Your task to perform on an android device: Clear the shopping cart on amazon. Search for logitech g pro on amazon, select the first entry, and add it to the cart. Image 0: 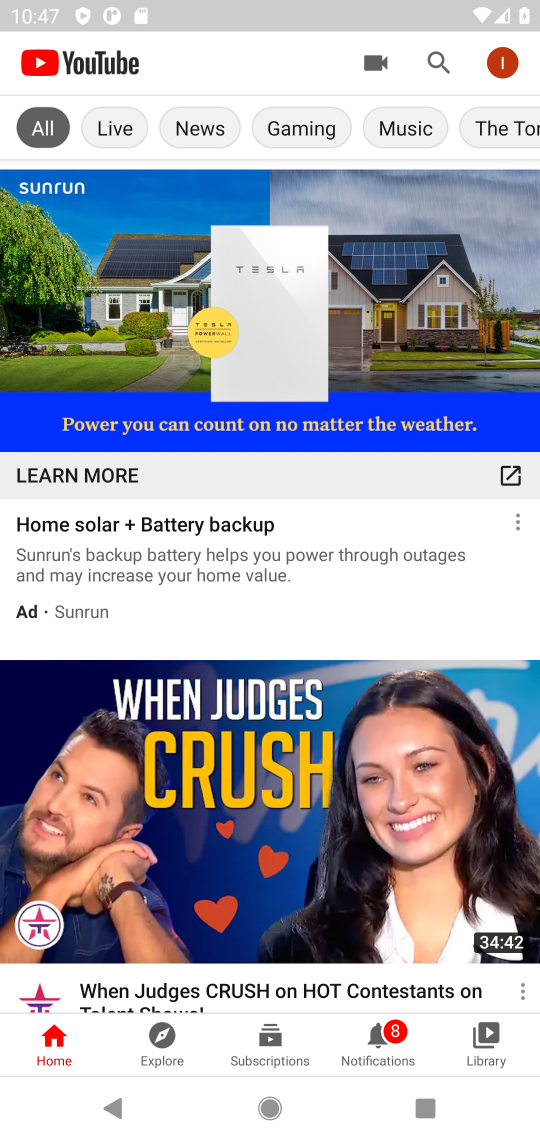
Step 0: press home button
Your task to perform on an android device: Clear the shopping cart on amazon. Search for logitech g pro on amazon, select the first entry, and add it to the cart. Image 1: 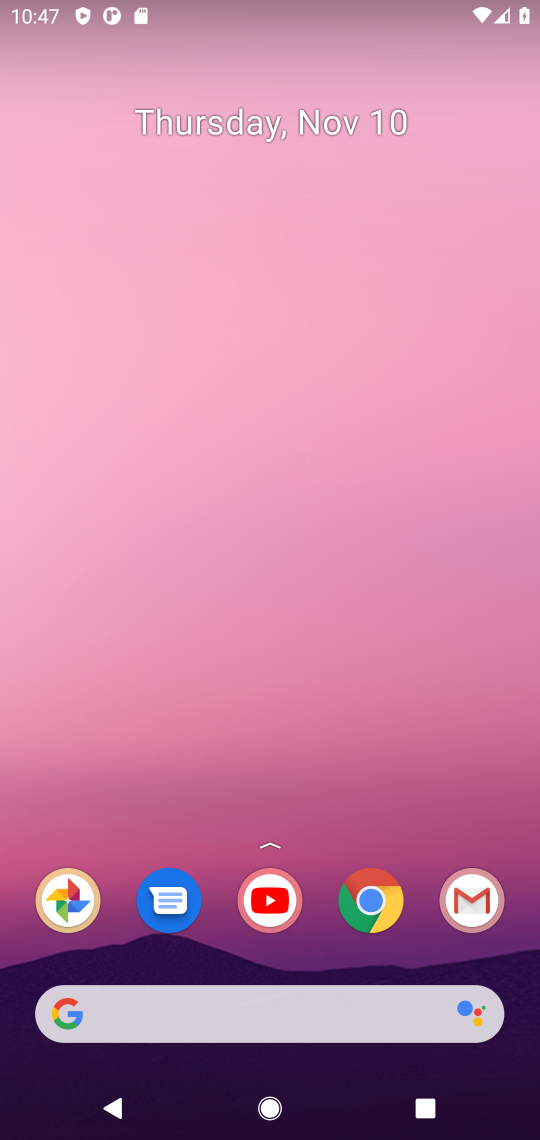
Step 1: click (366, 902)
Your task to perform on an android device: Clear the shopping cart on amazon. Search for logitech g pro on amazon, select the first entry, and add it to the cart. Image 2: 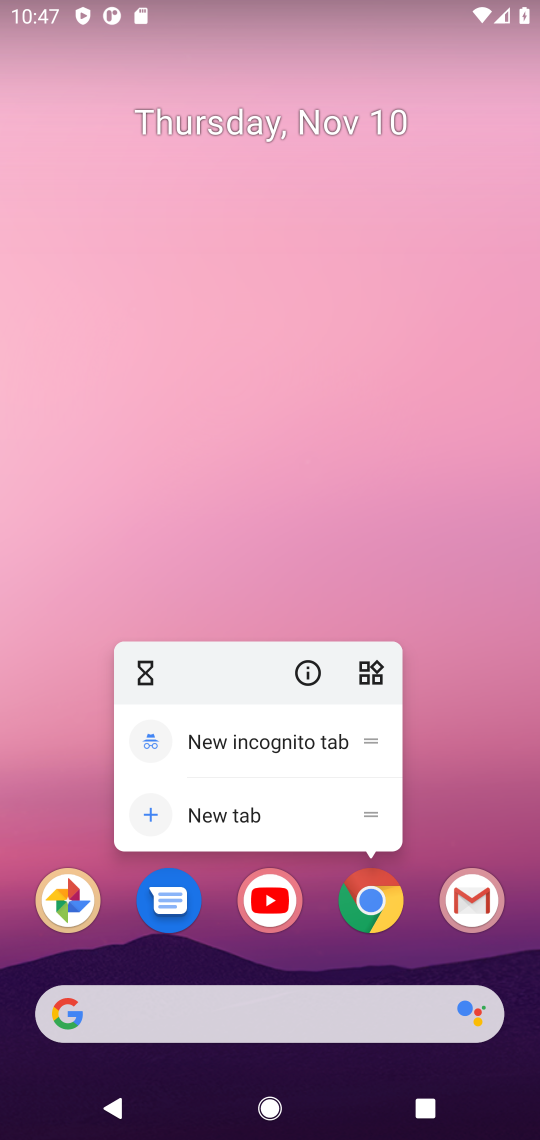
Step 2: click (372, 903)
Your task to perform on an android device: Clear the shopping cart on amazon. Search for logitech g pro on amazon, select the first entry, and add it to the cart. Image 3: 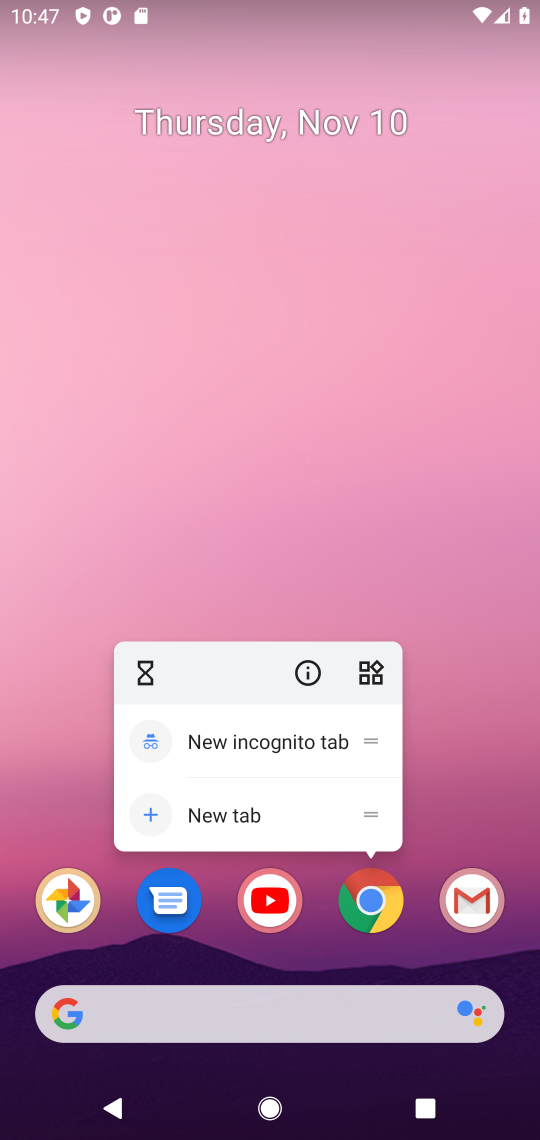
Step 3: click (372, 905)
Your task to perform on an android device: Clear the shopping cart on amazon. Search for logitech g pro on amazon, select the first entry, and add it to the cart. Image 4: 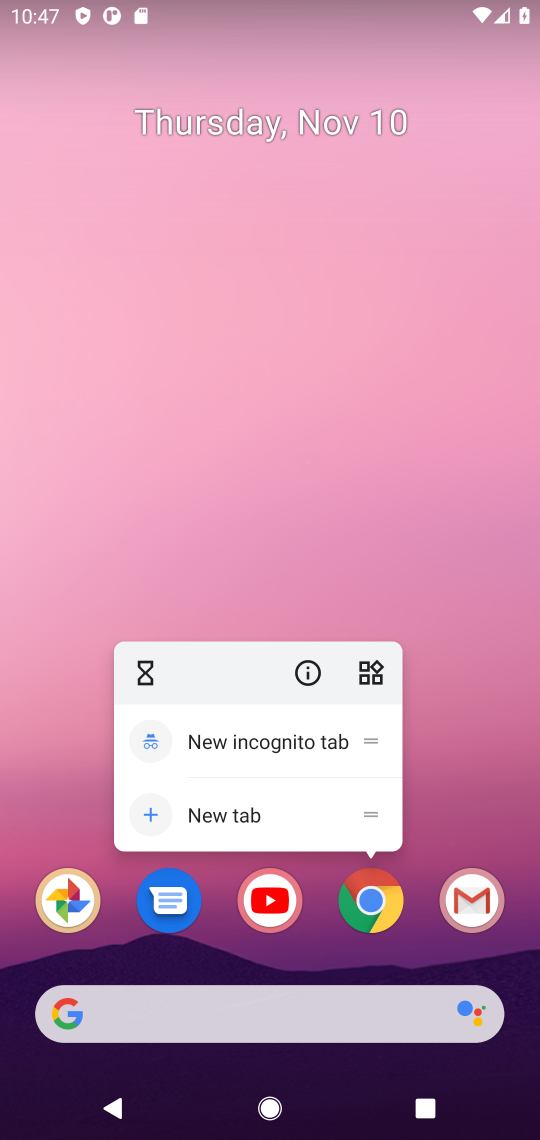
Step 4: click (372, 905)
Your task to perform on an android device: Clear the shopping cart on amazon. Search for logitech g pro on amazon, select the first entry, and add it to the cart. Image 5: 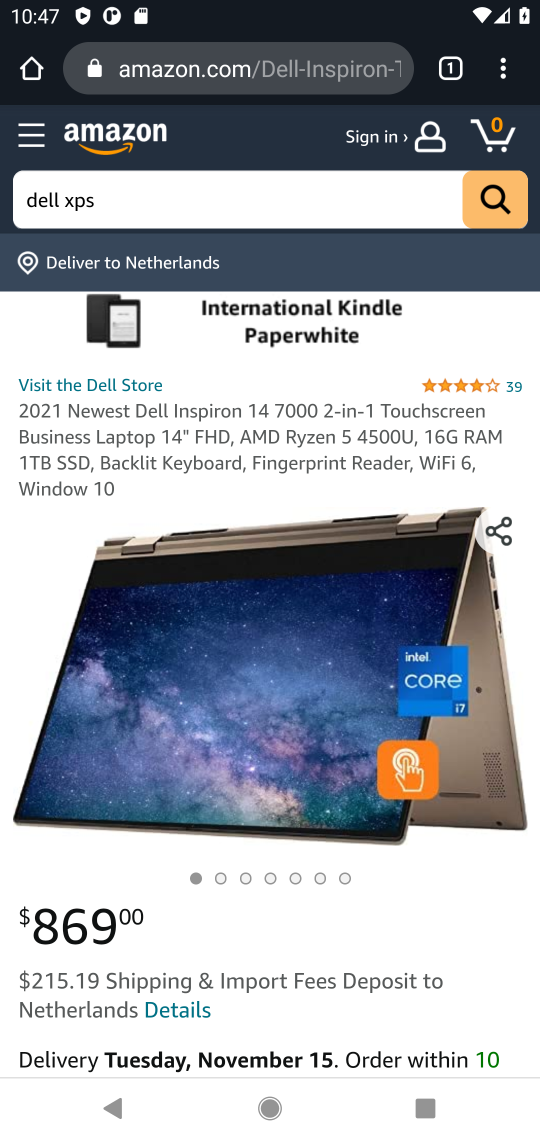
Step 5: click (290, 203)
Your task to perform on an android device: Clear the shopping cart on amazon. Search for logitech g pro on amazon, select the first entry, and add it to the cart. Image 6: 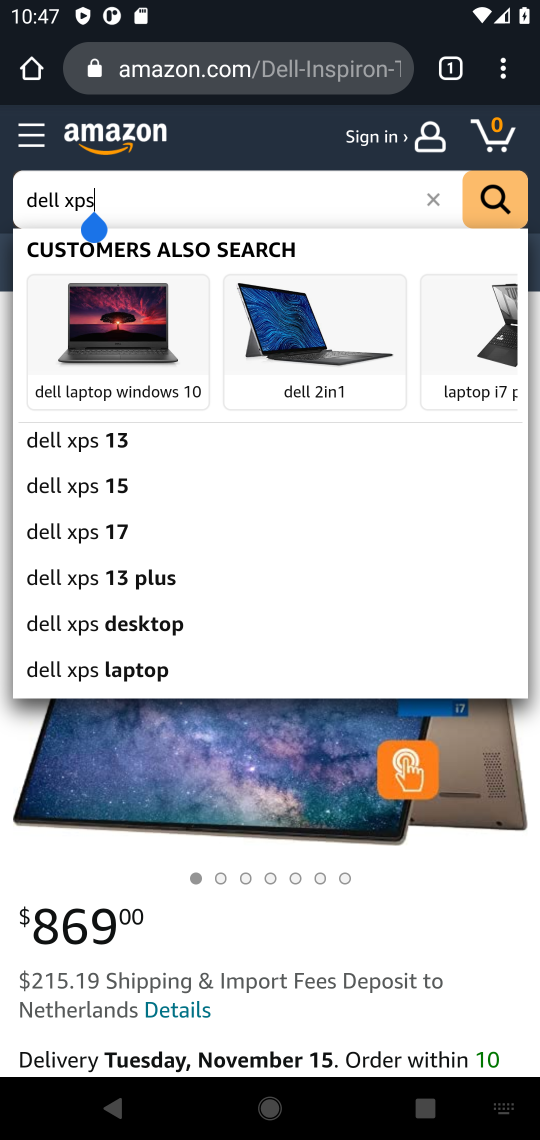
Step 6: click (431, 195)
Your task to perform on an android device: Clear the shopping cart on amazon. Search for logitech g pro on amazon, select the first entry, and add it to the cart. Image 7: 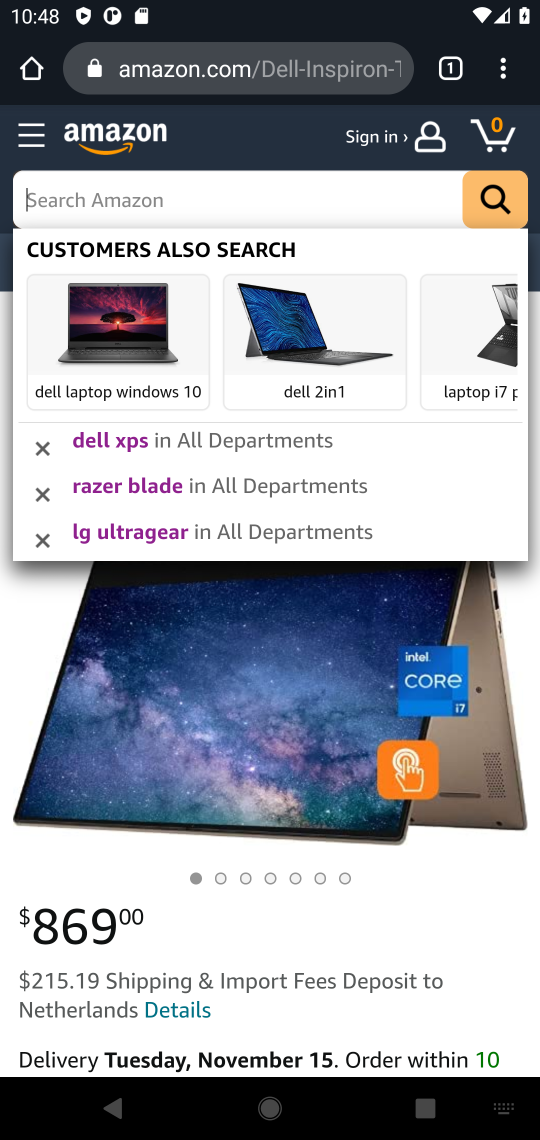
Step 7: type "logitech g pro"
Your task to perform on an android device: Clear the shopping cart on amazon. Search for logitech g pro on amazon, select the first entry, and add it to the cart. Image 8: 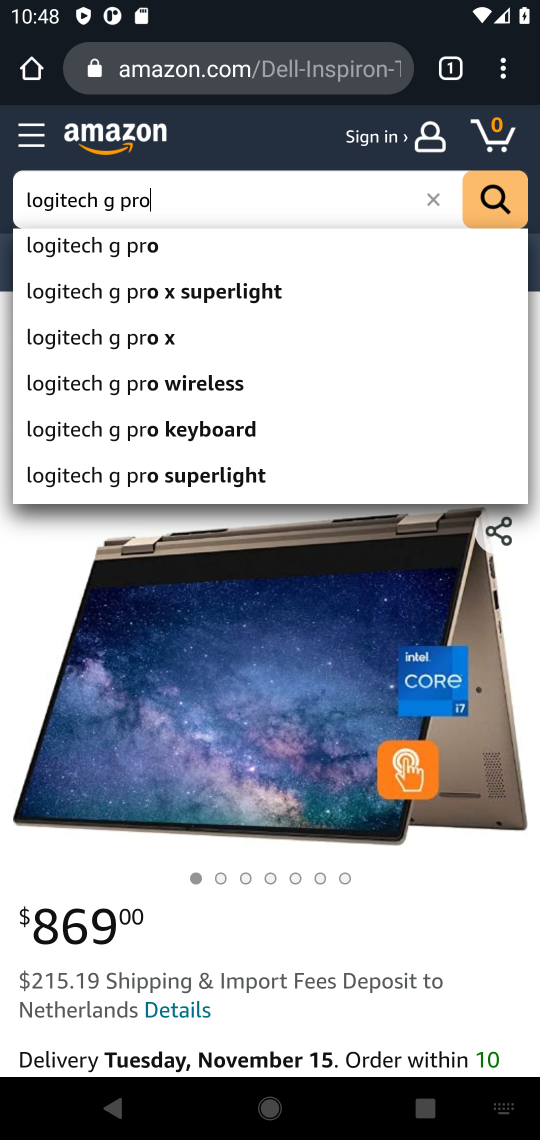
Step 8: press enter
Your task to perform on an android device: Clear the shopping cart on amazon. Search for logitech g pro on amazon, select the first entry, and add it to the cart. Image 9: 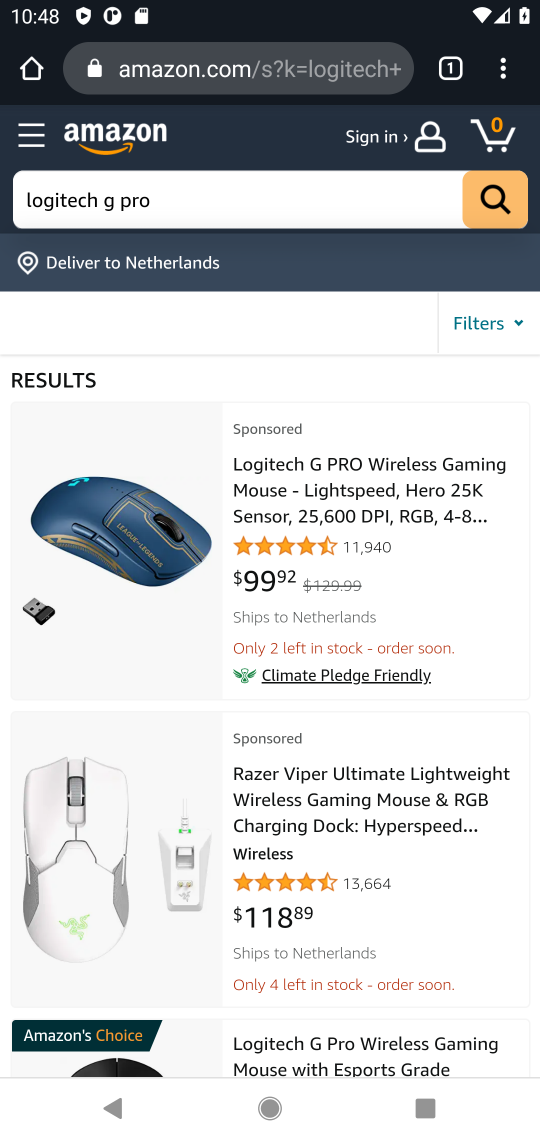
Step 9: click (419, 501)
Your task to perform on an android device: Clear the shopping cart on amazon. Search for logitech g pro on amazon, select the first entry, and add it to the cart. Image 10: 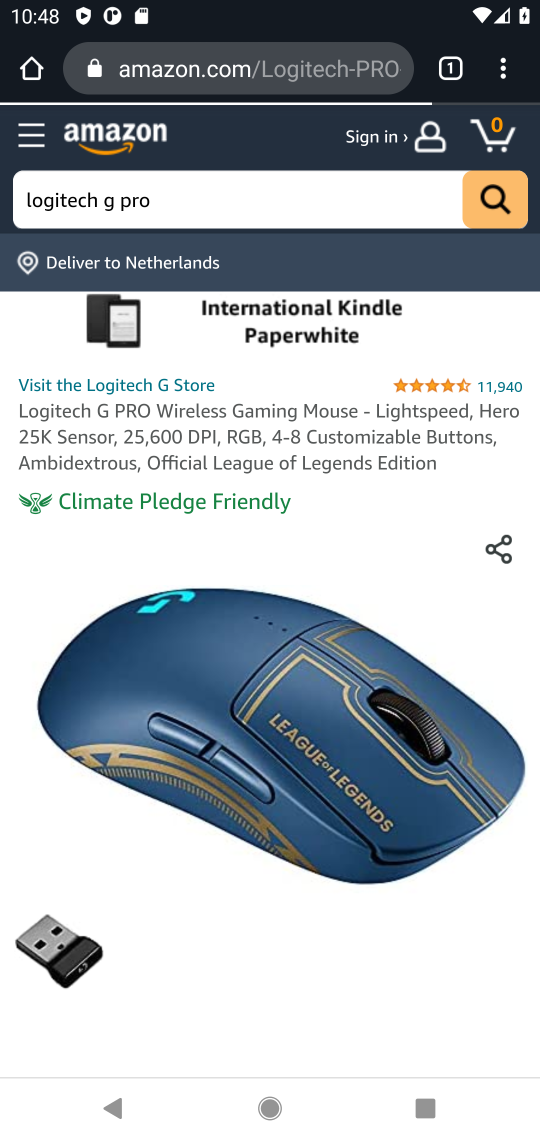
Step 10: drag from (246, 993) to (463, 266)
Your task to perform on an android device: Clear the shopping cart on amazon. Search for logitech g pro on amazon, select the first entry, and add it to the cart. Image 11: 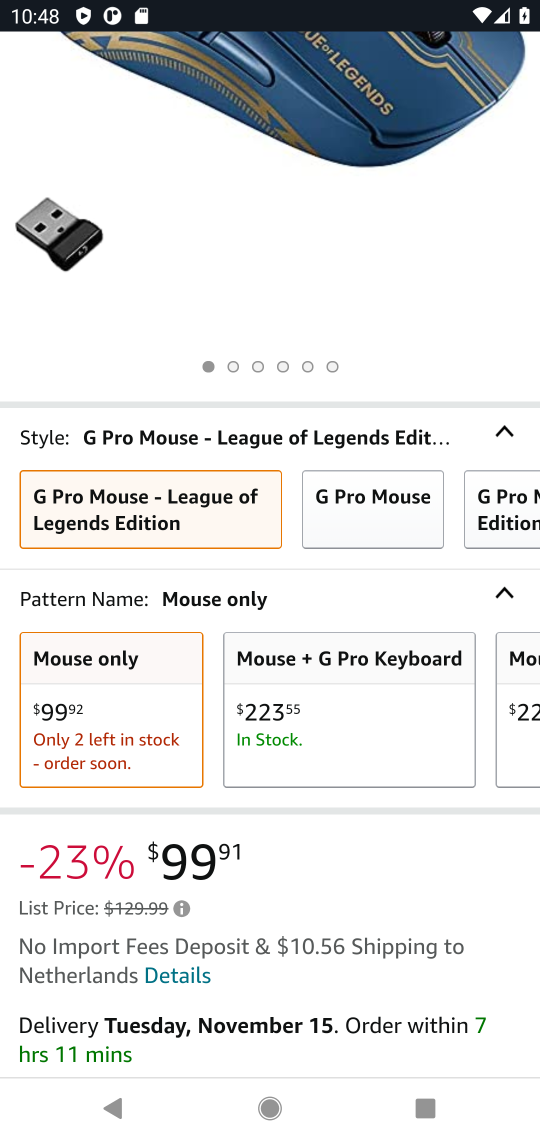
Step 11: drag from (272, 1000) to (404, 314)
Your task to perform on an android device: Clear the shopping cart on amazon. Search for logitech g pro on amazon, select the first entry, and add it to the cart. Image 12: 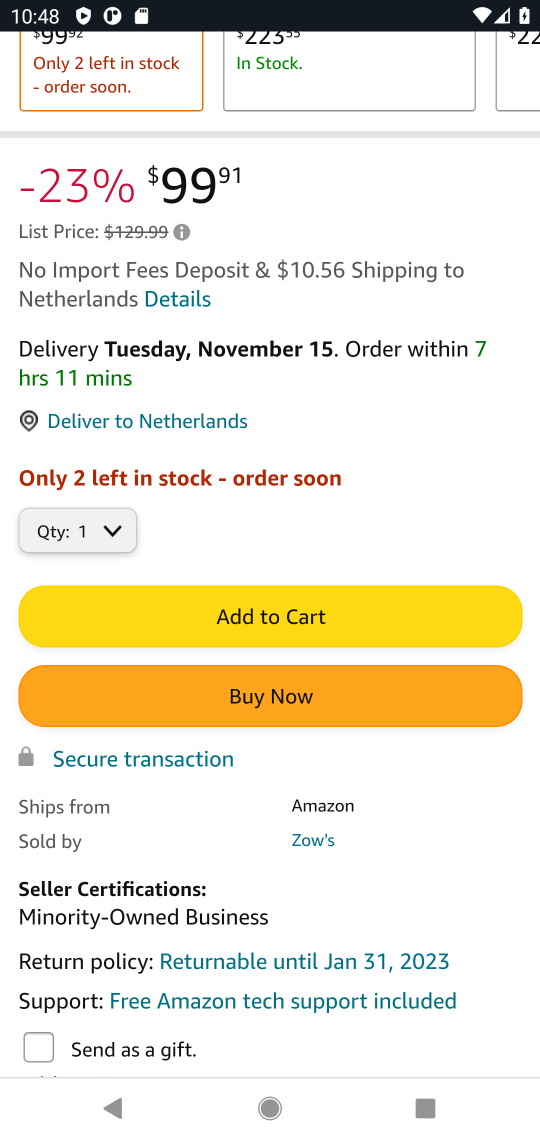
Step 12: click (294, 614)
Your task to perform on an android device: Clear the shopping cart on amazon. Search for logitech g pro on amazon, select the first entry, and add it to the cart. Image 13: 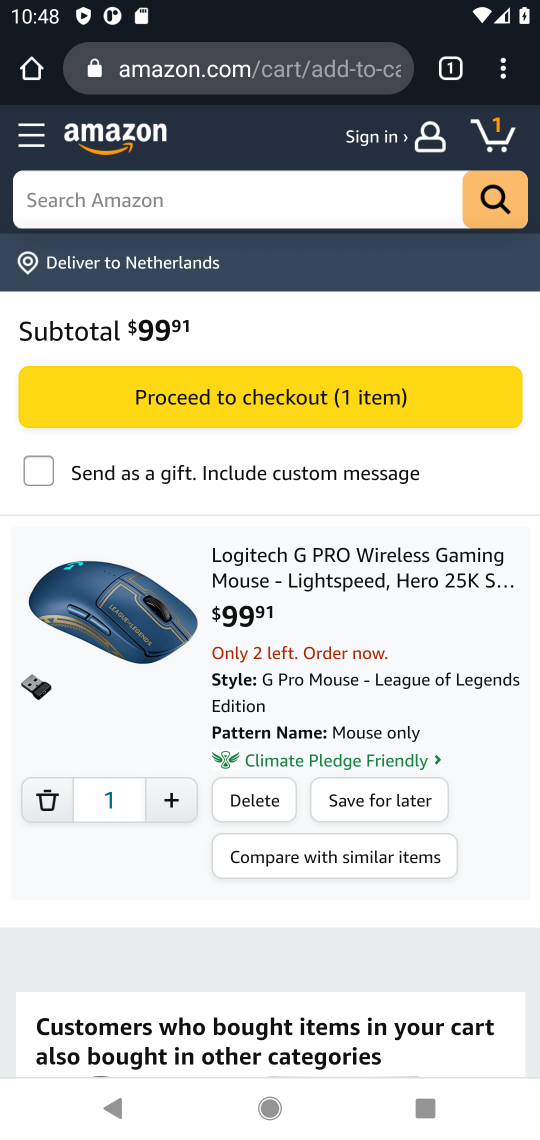
Step 13: task complete